Your task to perform on an android device: Go to wifi settings Image 0: 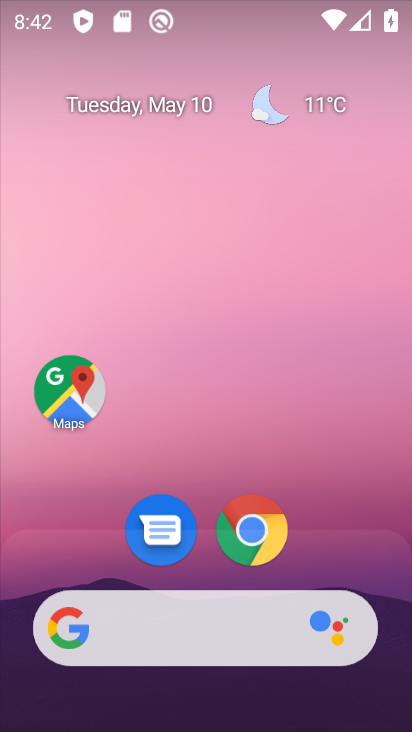
Step 0: drag from (319, 582) to (313, 168)
Your task to perform on an android device: Go to wifi settings Image 1: 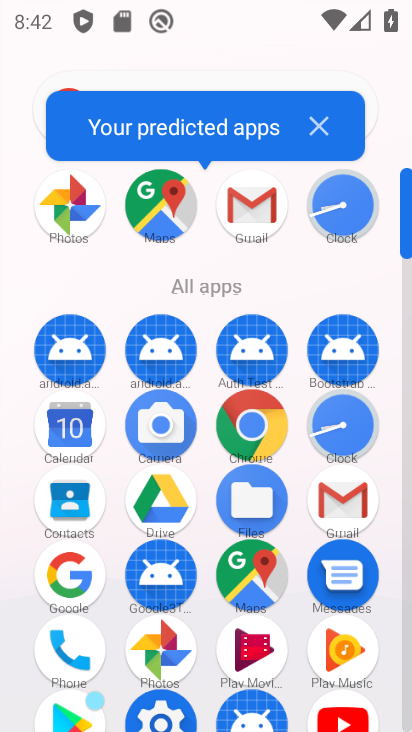
Step 1: drag from (171, 540) to (224, 168)
Your task to perform on an android device: Go to wifi settings Image 2: 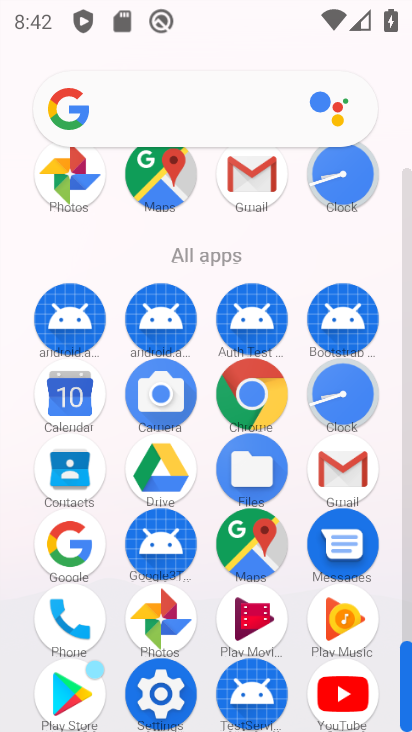
Step 2: click (187, 688)
Your task to perform on an android device: Go to wifi settings Image 3: 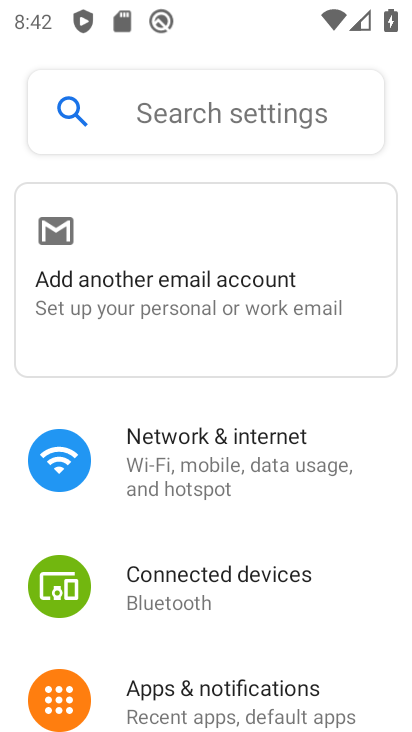
Step 3: click (212, 465)
Your task to perform on an android device: Go to wifi settings Image 4: 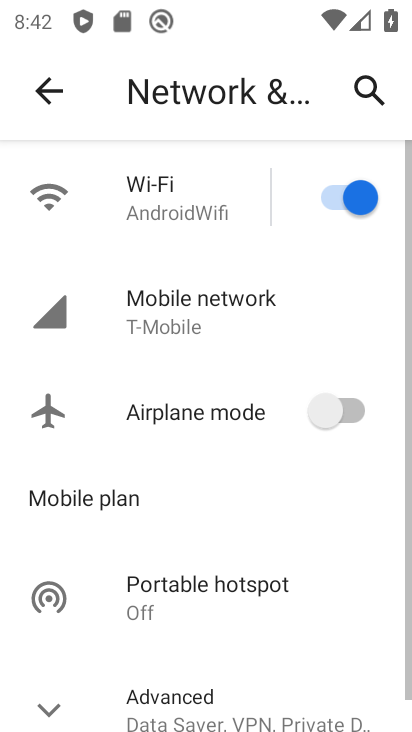
Step 4: click (172, 217)
Your task to perform on an android device: Go to wifi settings Image 5: 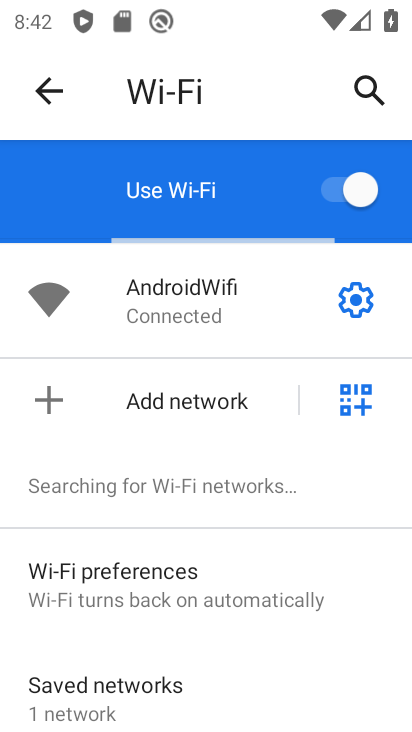
Step 5: task complete